Your task to perform on an android device: Open Yahoo.com Image 0: 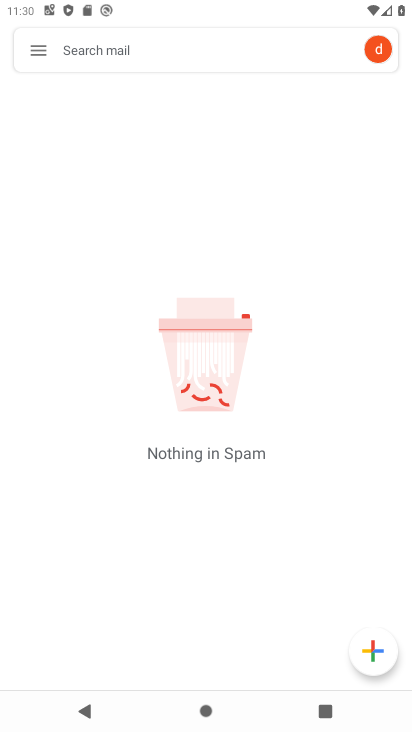
Step 0: press home button
Your task to perform on an android device: Open Yahoo.com Image 1: 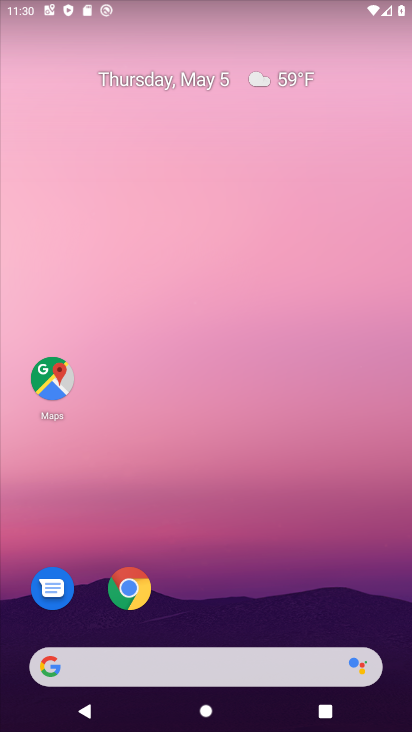
Step 1: click (201, 670)
Your task to perform on an android device: Open Yahoo.com Image 2: 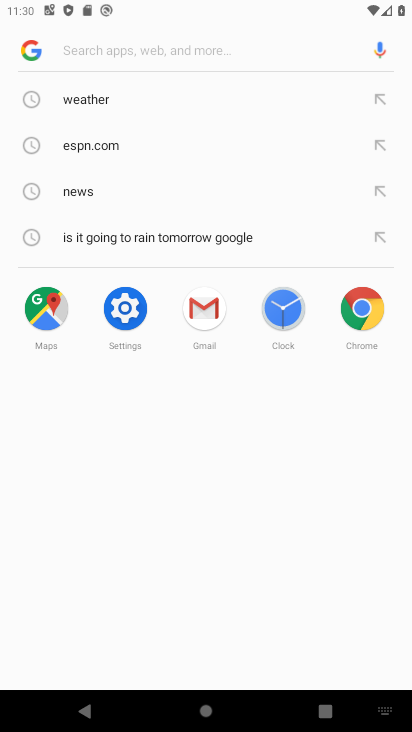
Step 2: type "yahoo.com"
Your task to perform on an android device: Open Yahoo.com Image 3: 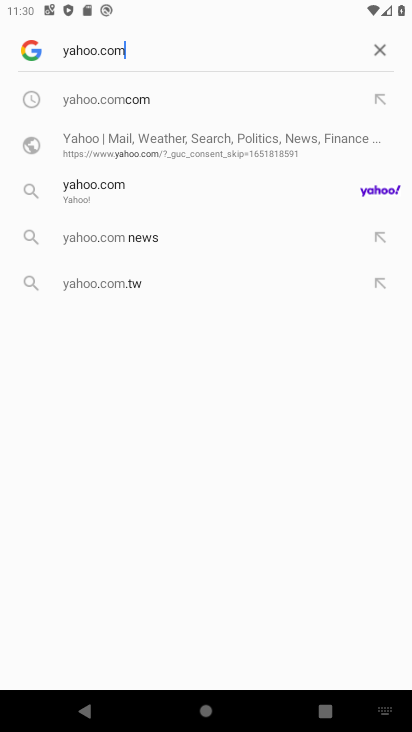
Step 3: click (367, 194)
Your task to perform on an android device: Open Yahoo.com Image 4: 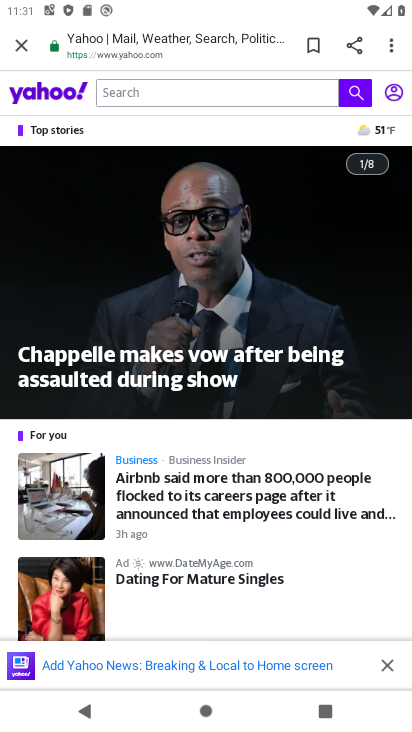
Step 4: task complete